Your task to perform on an android device: Open Chrome and go to settings Image 0: 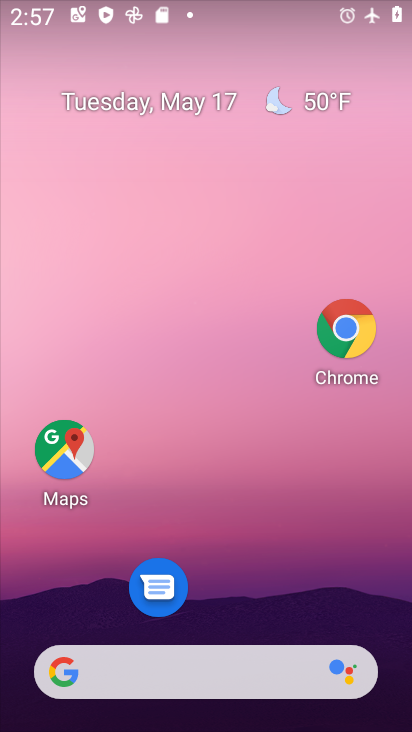
Step 0: click (340, 342)
Your task to perform on an android device: Open Chrome and go to settings Image 1: 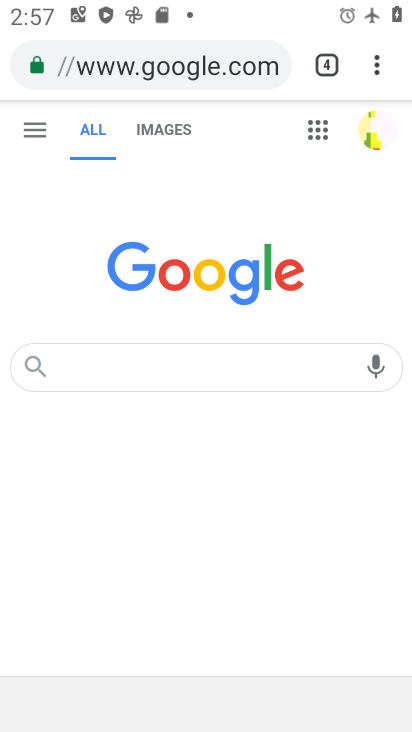
Step 1: click (374, 77)
Your task to perform on an android device: Open Chrome and go to settings Image 2: 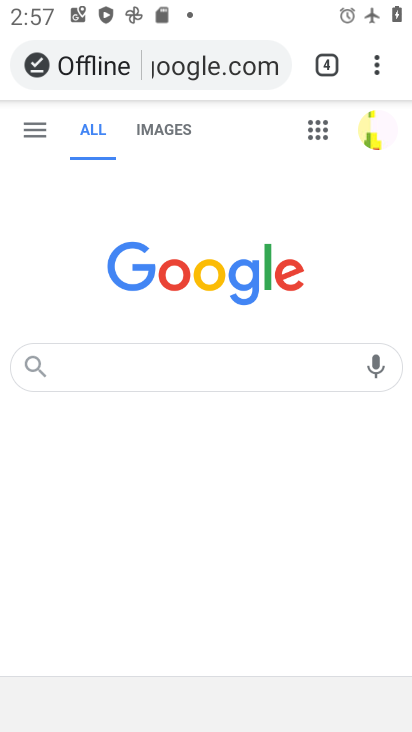
Step 2: click (372, 66)
Your task to perform on an android device: Open Chrome and go to settings Image 3: 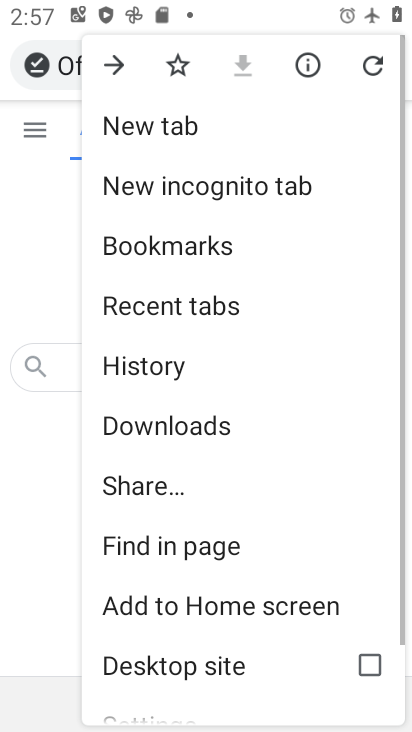
Step 3: drag from (240, 534) to (275, 275)
Your task to perform on an android device: Open Chrome and go to settings Image 4: 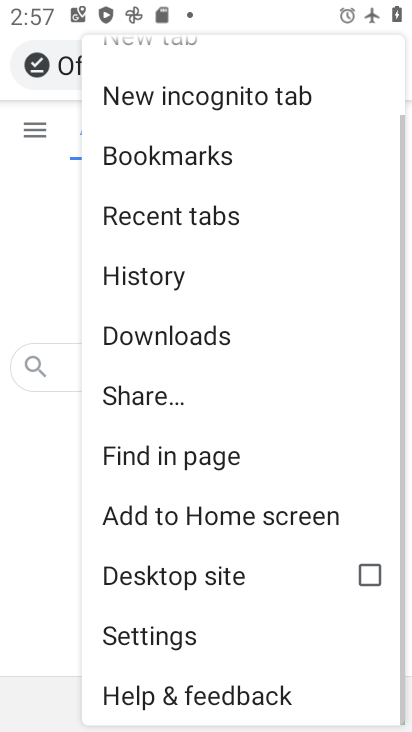
Step 4: click (218, 643)
Your task to perform on an android device: Open Chrome and go to settings Image 5: 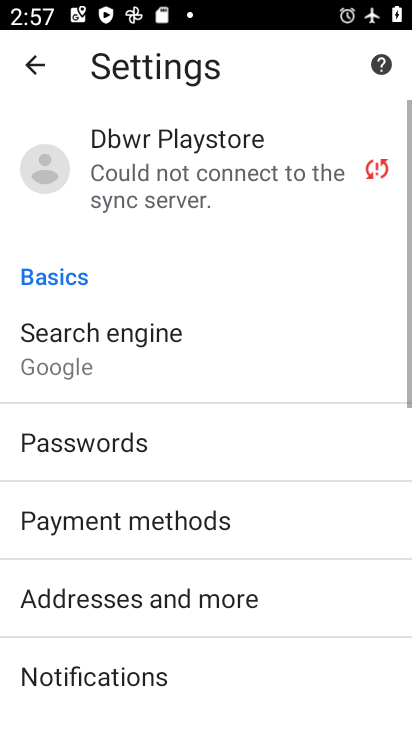
Step 5: task complete